Your task to perform on an android device: turn off smart reply in the gmail app Image 0: 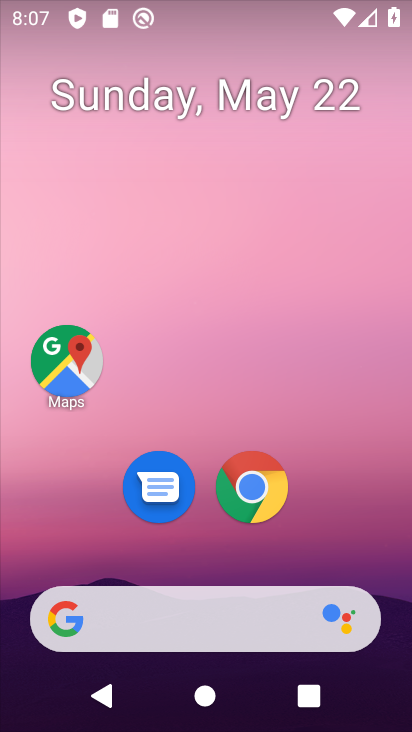
Step 0: click (402, 38)
Your task to perform on an android device: turn off smart reply in the gmail app Image 1: 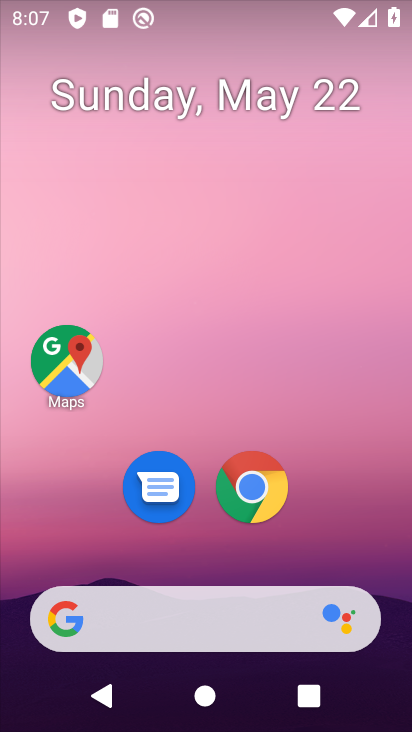
Step 1: drag from (354, 527) to (364, 102)
Your task to perform on an android device: turn off smart reply in the gmail app Image 2: 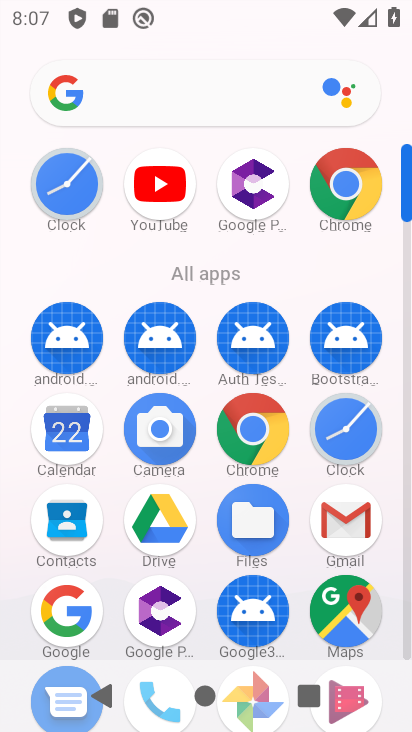
Step 2: click (352, 509)
Your task to perform on an android device: turn off smart reply in the gmail app Image 3: 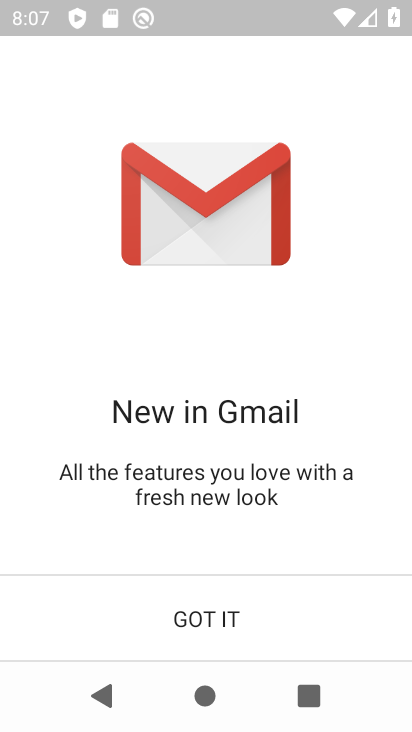
Step 3: click (183, 622)
Your task to perform on an android device: turn off smart reply in the gmail app Image 4: 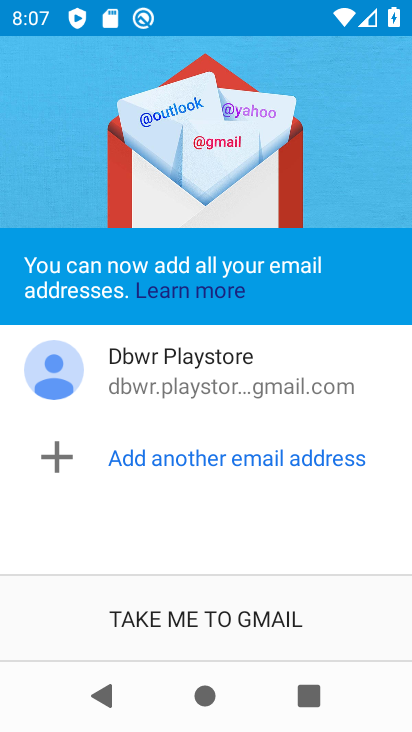
Step 4: click (183, 622)
Your task to perform on an android device: turn off smart reply in the gmail app Image 5: 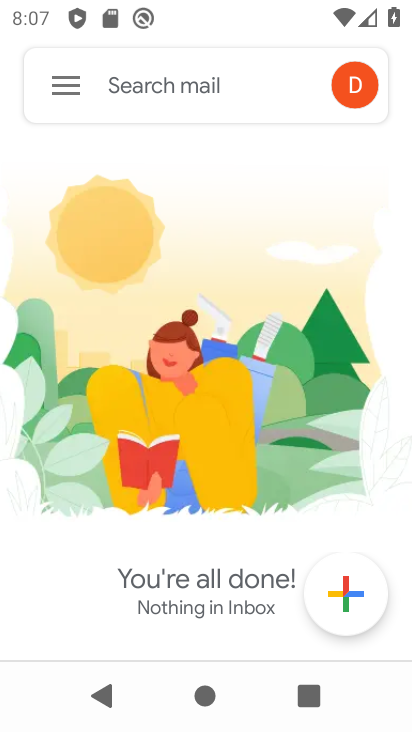
Step 5: click (53, 111)
Your task to perform on an android device: turn off smart reply in the gmail app Image 6: 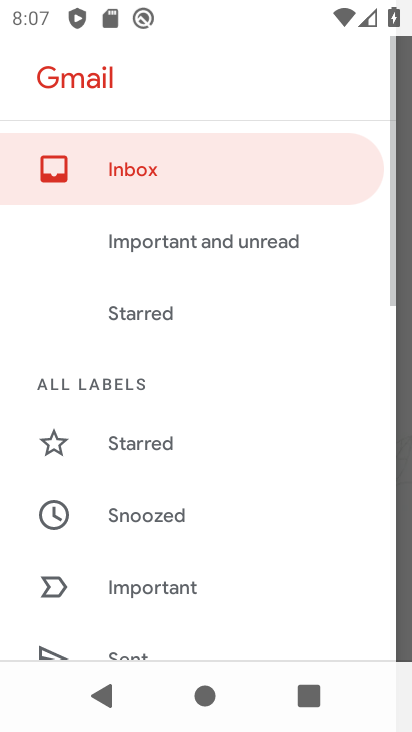
Step 6: drag from (160, 531) to (279, 129)
Your task to perform on an android device: turn off smart reply in the gmail app Image 7: 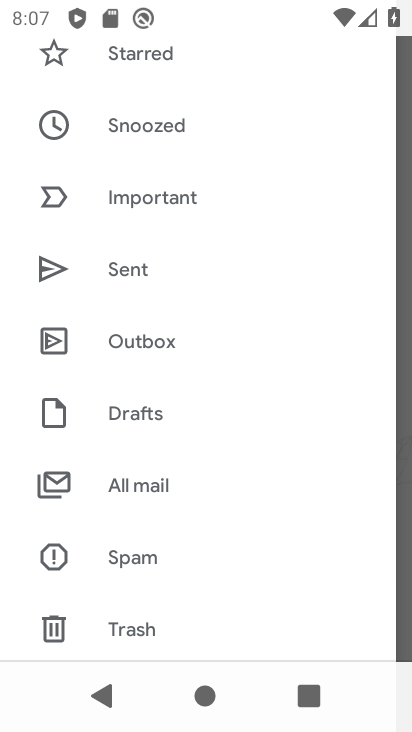
Step 7: drag from (87, 635) to (253, 135)
Your task to perform on an android device: turn off smart reply in the gmail app Image 8: 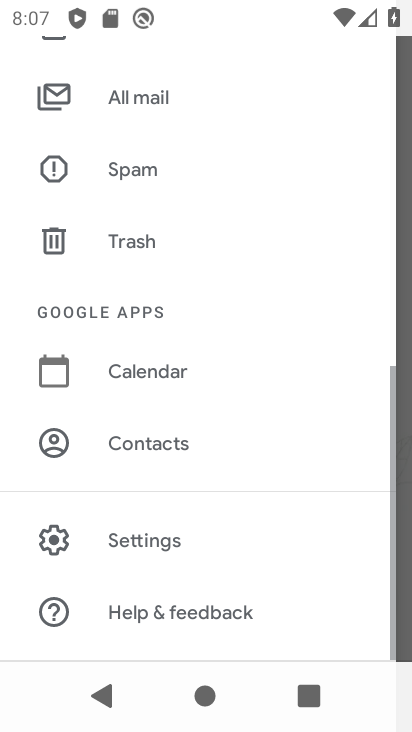
Step 8: click (140, 552)
Your task to perform on an android device: turn off smart reply in the gmail app Image 9: 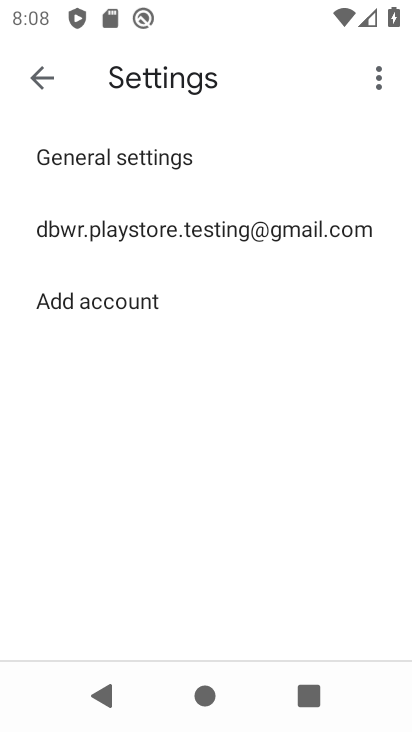
Step 9: click (99, 240)
Your task to perform on an android device: turn off smart reply in the gmail app Image 10: 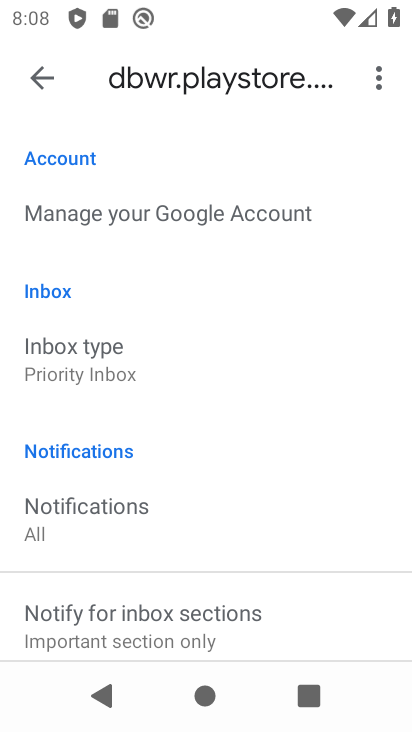
Step 10: drag from (148, 560) to (158, 173)
Your task to perform on an android device: turn off smart reply in the gmail app Image 11: 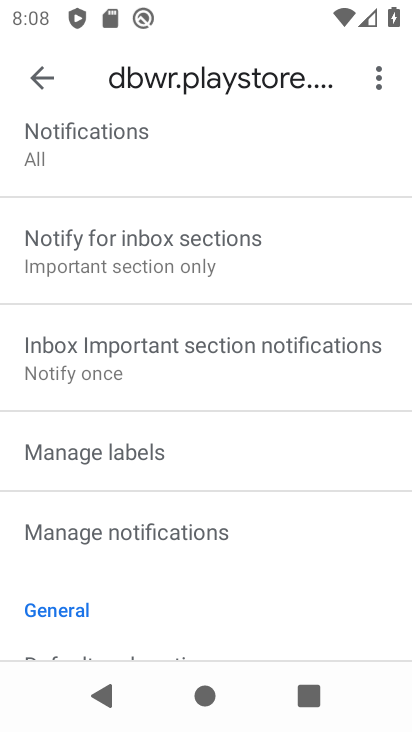
Step 11: drag from (181, 533) to (256, 158)
Your task to perform on an android device: turn off smart reply in the gmail app Image 12: 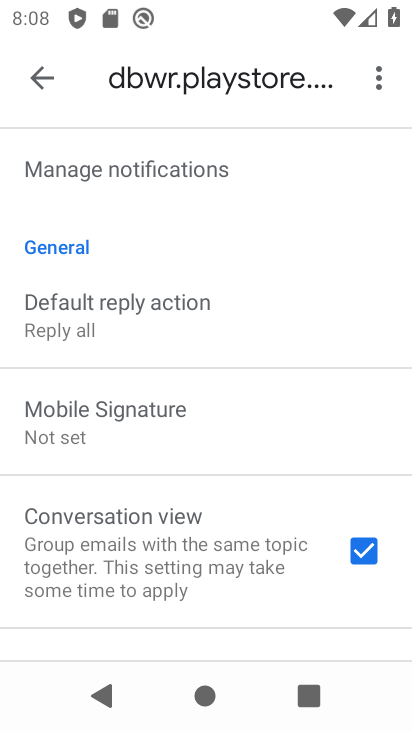
Step 12: drag from (246, 508) to (299, 124)
Your task to perform on an android device: turn off smart reply in the gmail app Image 13: 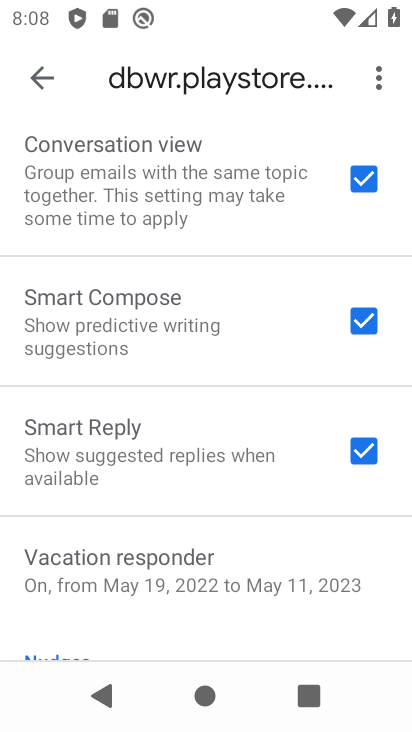
Step 13: click (359, 455)
Your task to perform on an android device: turn off smart reply in the gmail app Image 14: 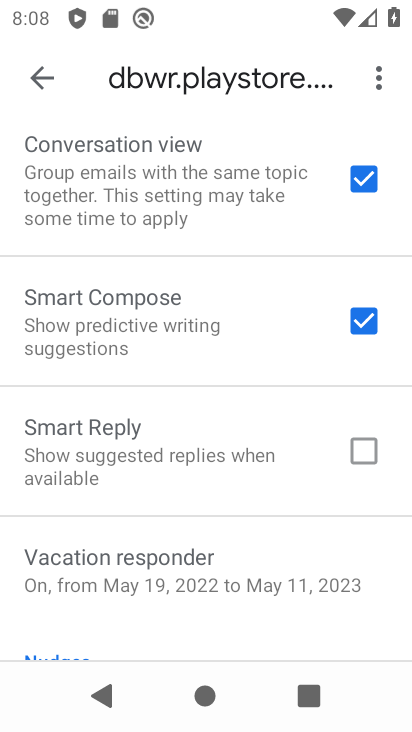
Step 14: task complete